Your task to perform on an android device: What's the weather going to be this weekend? Image 0: 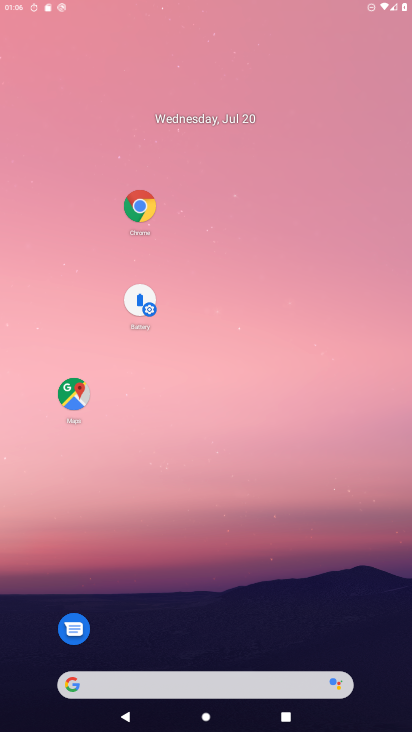
Step 0: drag from (231, 200) to (235, 120)
Your task to perform on an android device: What's the weather going to be this weekend? Image 1: 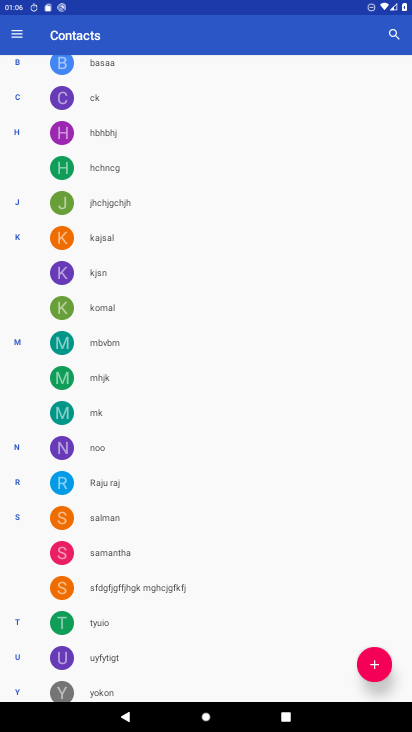
Step 1: press home button
Your task to perform on an android device: What's the weather going to be this weekend? Image 2: 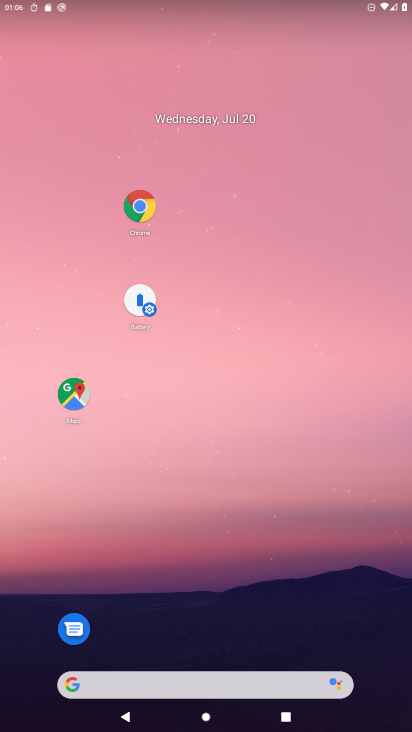
Step 2: drag from (182, 632) to (214, 70)
Your task to perform on an android device: What's the weather going to be this weekend? Image 3: 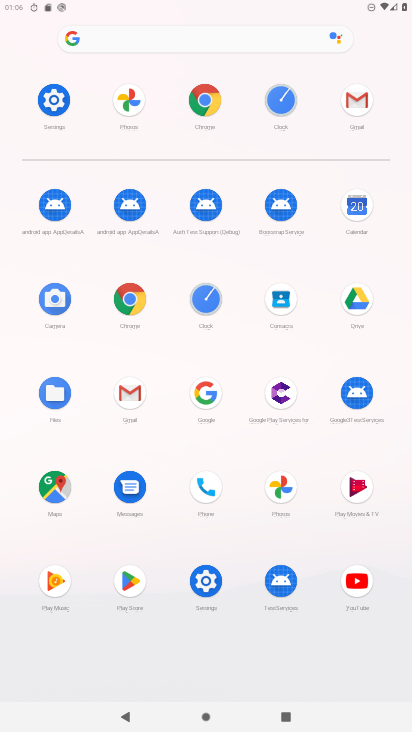
Step 3: click (144, 44)
Your task to perform on an android device: What's the weather going to be this weekend? Image 4: 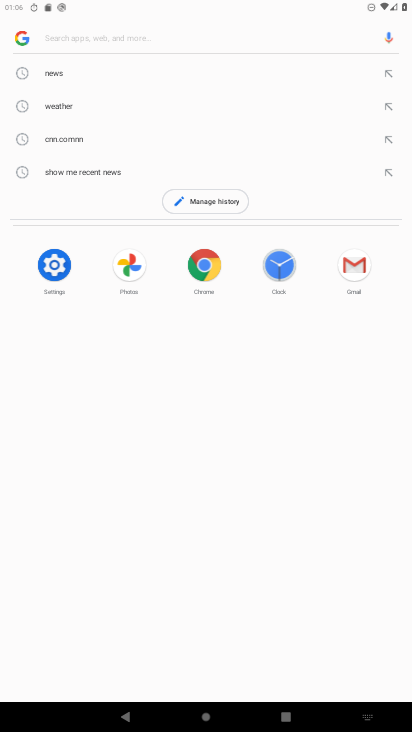
Step 4: type "What's the weather going to be this weekend?"
Your task to perform on an android device: What's the weather going to be this weekend? Image 5: 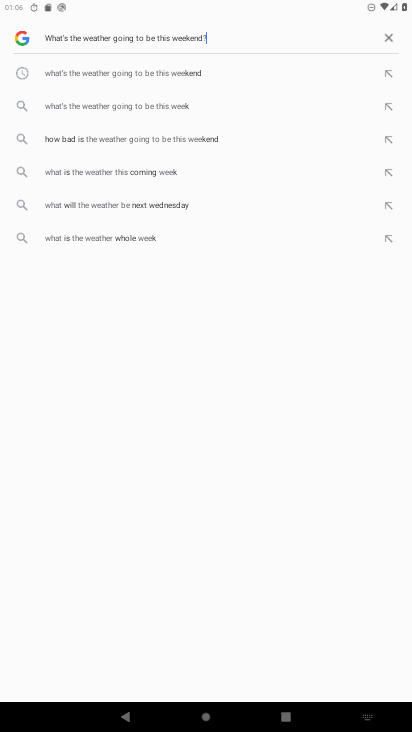
Step 5: type ""
Your task to perform on an android device: What's the weather going to be this weekend? Image 6: 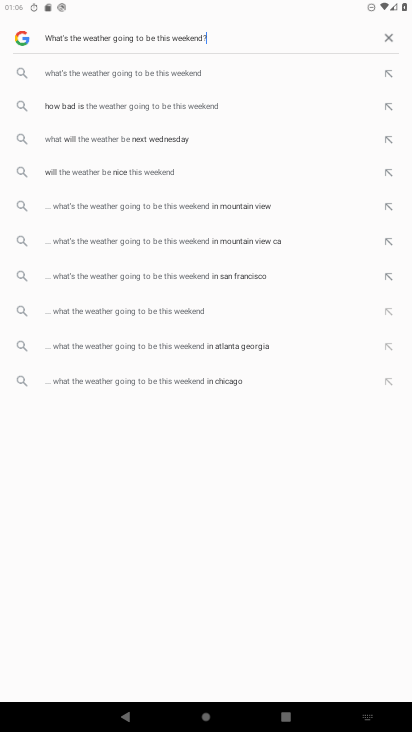
Step 6: click (178, 72)
Your task to perform on an android device: What's the weather going to be this weekend? Image 7: 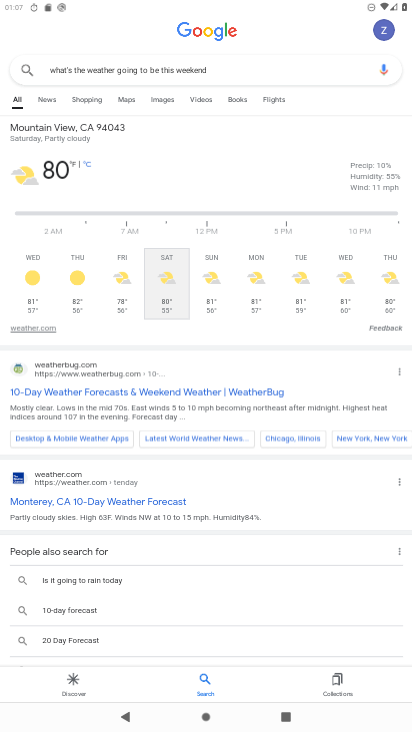
Step 7: task complete